Your task to perform on an android device: change alarm snooze length Image 0: 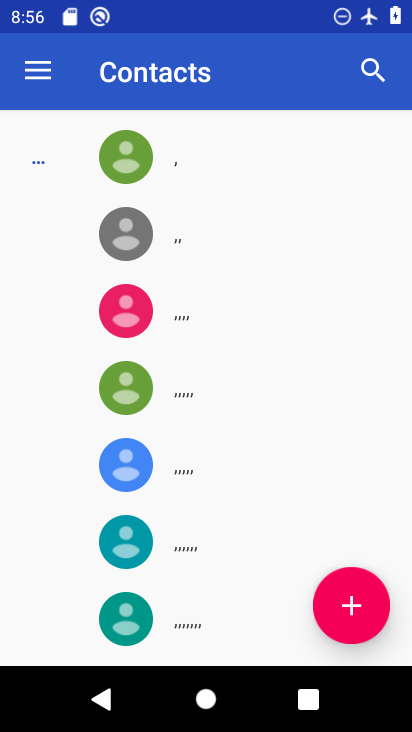
Step 0: press home button
Your task to perform on an android device: change alarm snooze length Image 1: 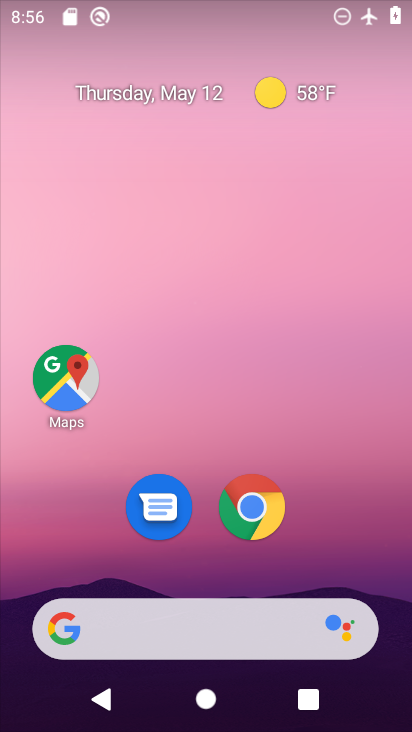
Step 1: drag from (177, 559) to (222, 129)
Your task to perform on an android device: change alarm snooze length Image 2: 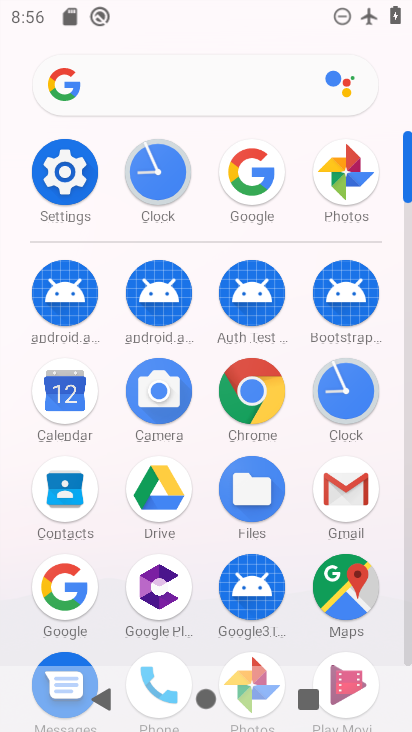
Step 2: click (336, 385)
Your task to perform on an android device: change alarm snooze length Image 3: 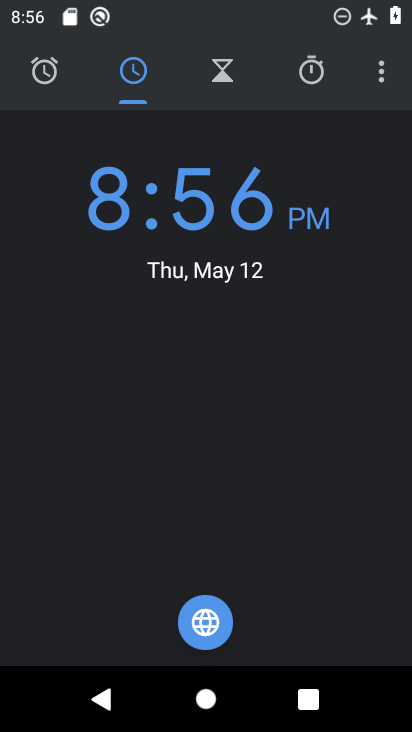
Step 3: click (375, 93)
Your task to perform on an android device: change alarm snooze length Image 4: 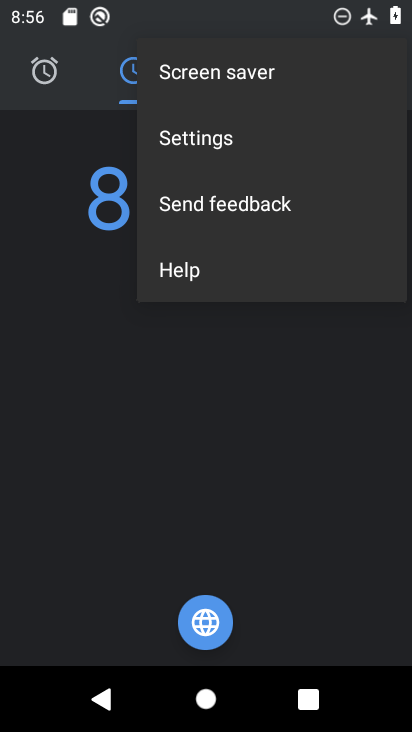
Step 4: click (226, 141)
Your task to perform on an android device: change alarm snooze length Image 5: 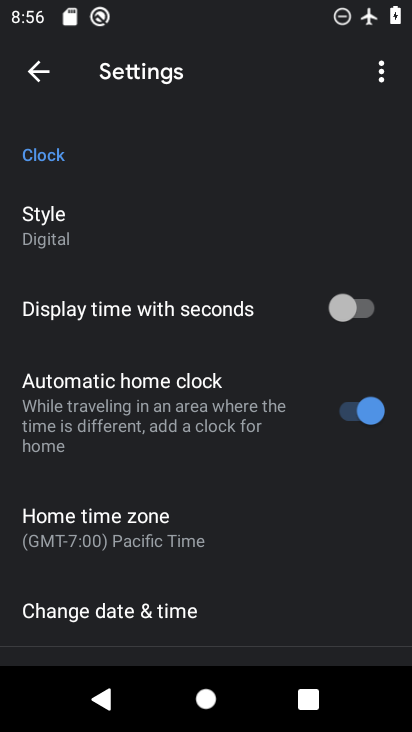
Step 5: drag from (245, 561) to (227, 121)
Your task to perform on an android device: change alarm snooze length Image 6: 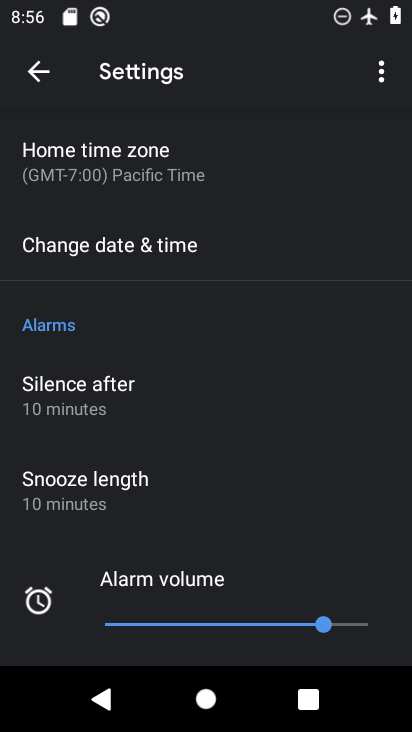
Step 6: click (159, 485)
Your task to perform on an android device: change alarm snooze length Image 7: 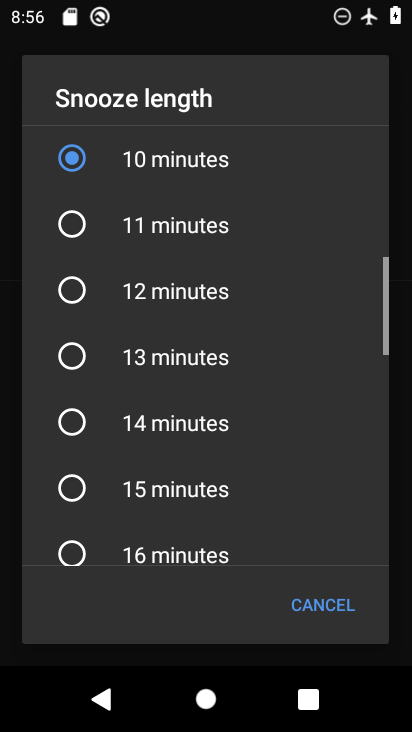
Step 7: click (181, 431)
Your task to perform on an android device: change alarm snooze length Image 8: 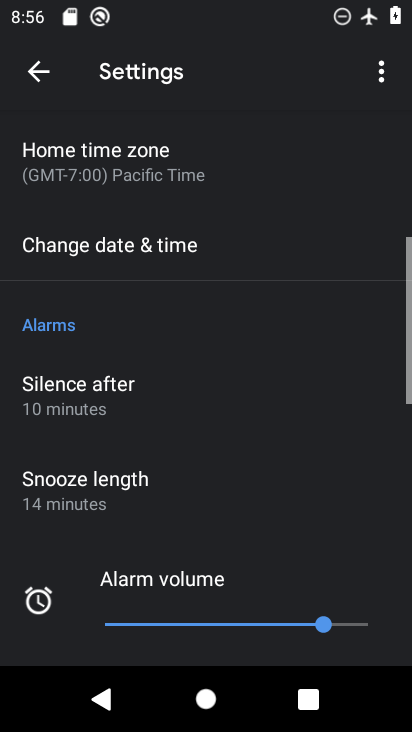
Step 8: task complete